Your task to perform on an android device: Open calendar and show me the first week of next month Image 0: 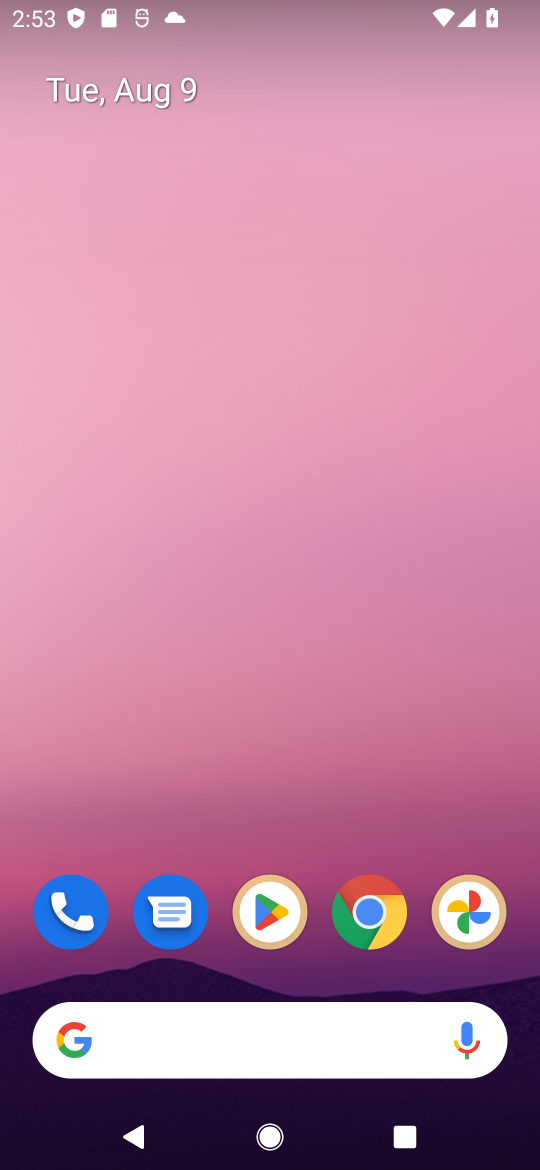
Step 0: drag from (248, 830) to (161, 56)
Your task to perform on an android device: Open calendar and show me the first week of next month Image 1: 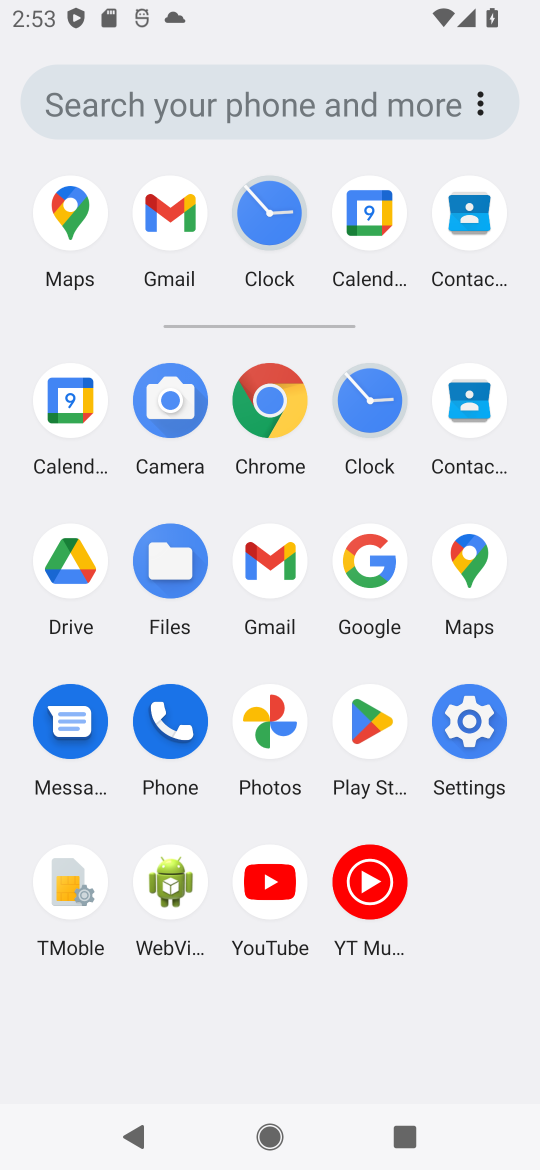
Step 1: click (360, 210)
Your task to perform on an android device: Open calendar and show me the first week of next month Image 2: 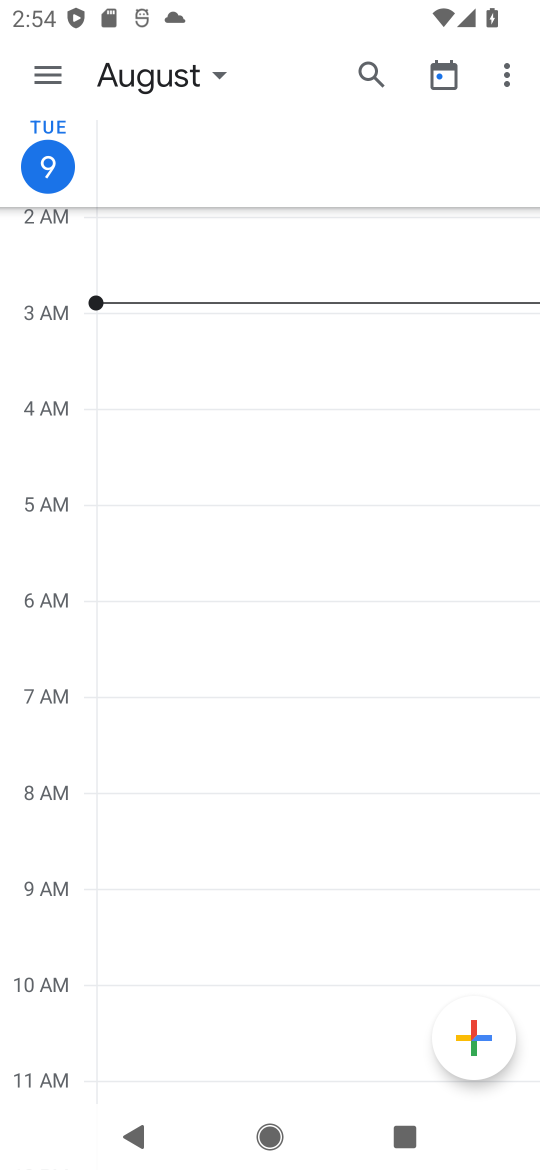
Step 2: click (51, 74)
Your task to perform on an android device: Open calendar and show me the first week of next month Image 3: 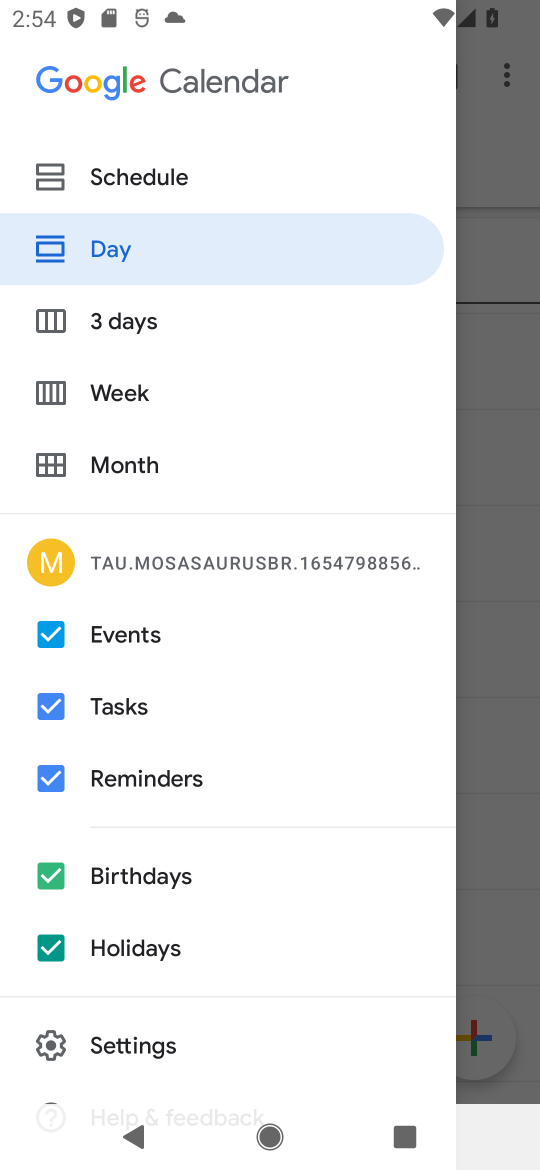
Step 3: click (126, 381)
Your task to perform on an android device: Open calendar and show me the first week of next month Image 4: 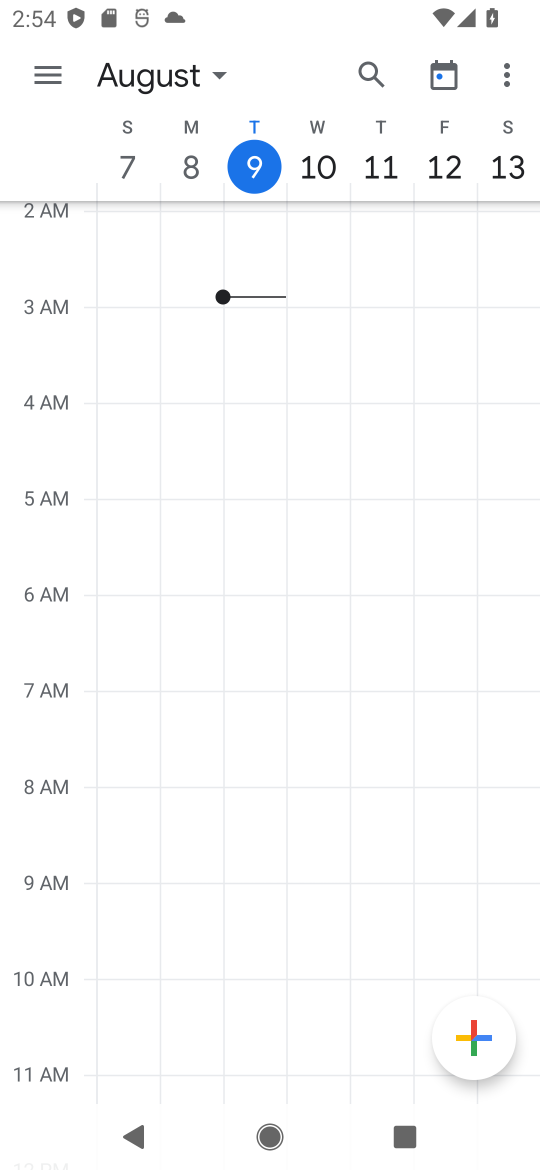
Step 4: click (224, 72)
Your task to perform on an android device: Open calendar and show me the first week of next month Image 5: 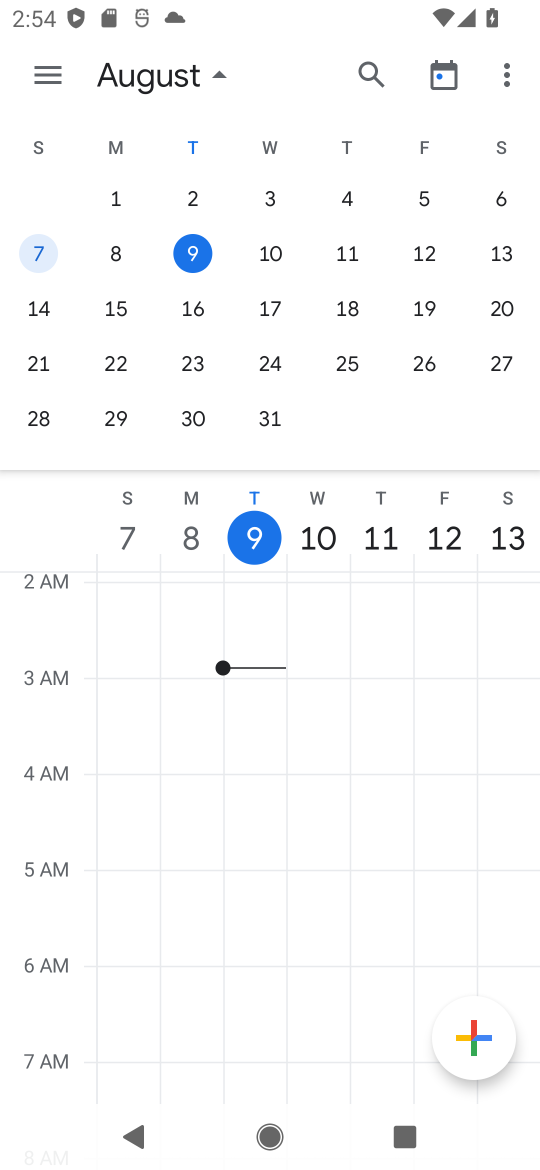
Step 5: task complete